Your task to perform on an android device: empty trash in the gmail app Image 0: 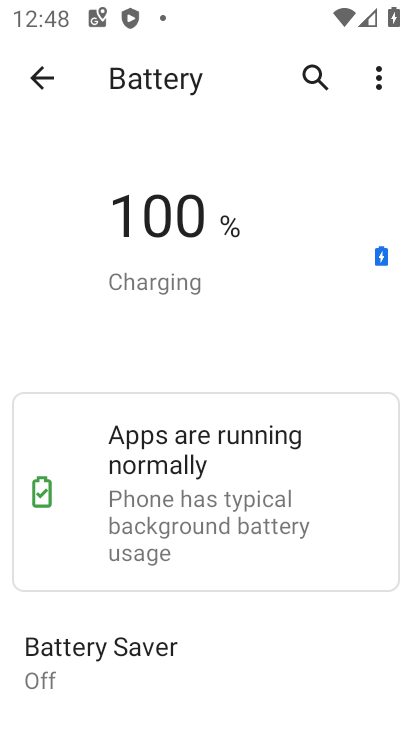
Step 0: press home button
Your task to perform on an android device: empty trash in the gmail app Image 1: 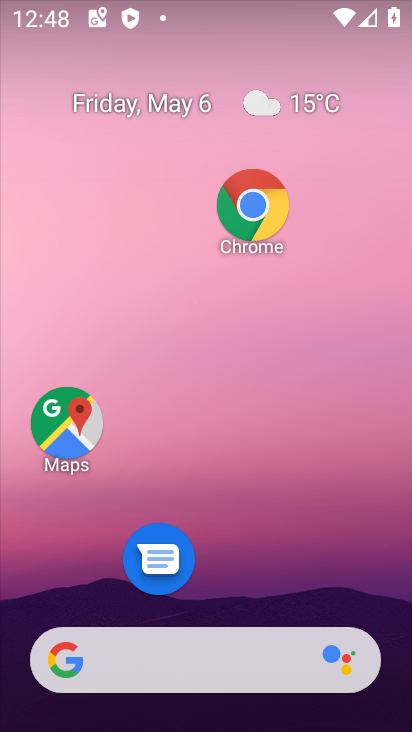
Step 1: drag from (242, 601) to (46, 15)
Your task to perform on an android device: empty trash in the gmail app Image 2: 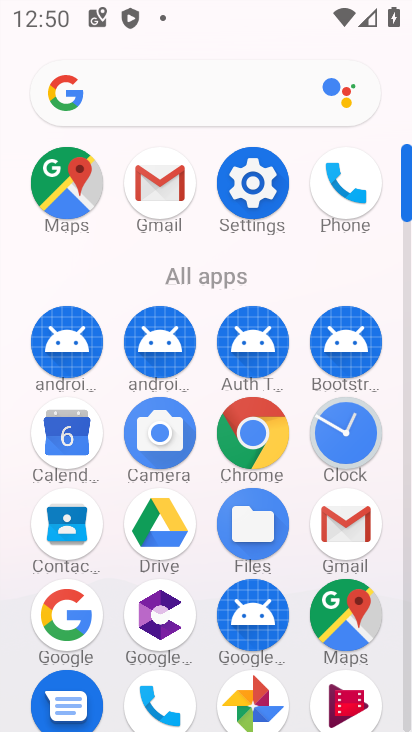
Step 2: click (361, 514)
Your task to perform on an android device: empty trash in the gmail app Image 3: 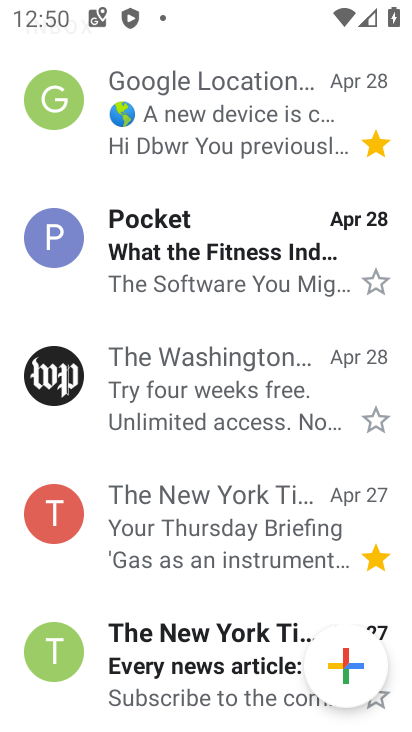
Step 3: drag from (209, 247) to (222, 577)
Your task to perform on an android device: empty trash in the gmail app Image 4: 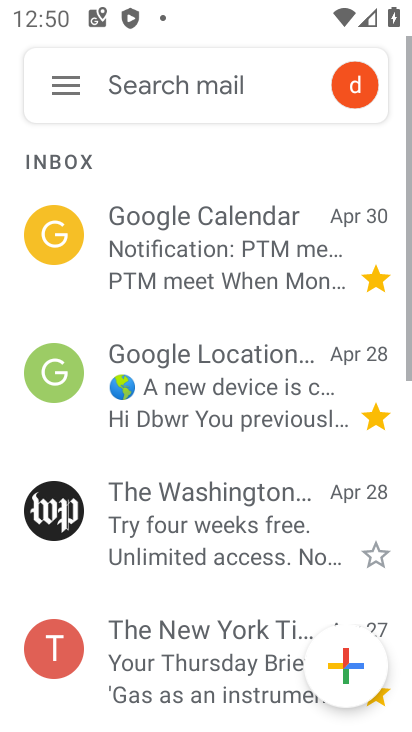
Step 4: click (66, 85)
Your task to perform on an android device: empty trash in the gmail app Image 5: 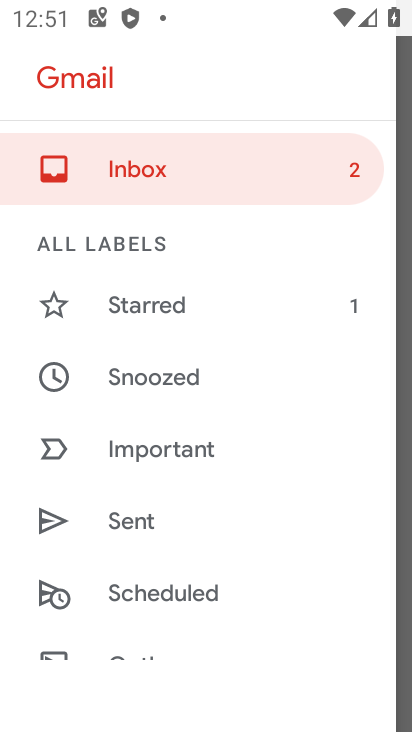
Step 5: drag from (231, 584) to (195, 146)
Your task to perform on an android device: empty trash in the gmail app Image 6: 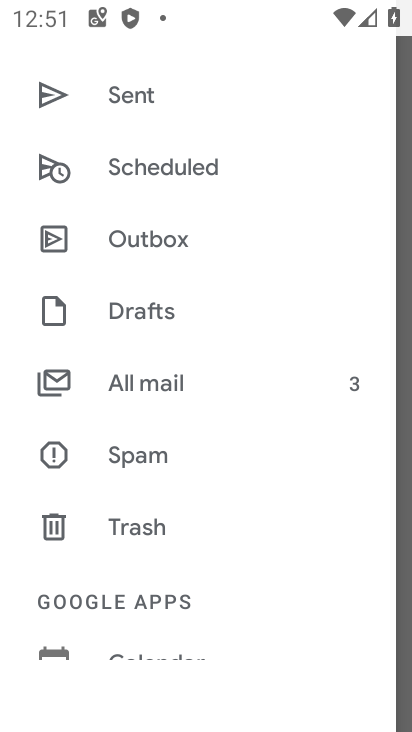
Step 6: click (130, 521)
Your task to perform on an android device: empty trash in the gmail app Image 7: 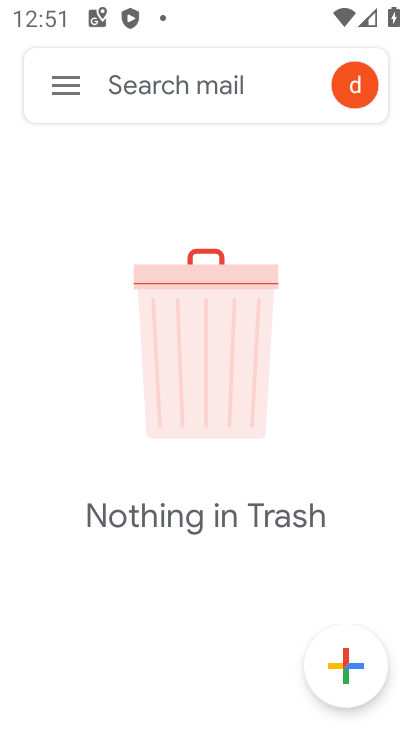
Step 7: task complete